Your task to perform on an android device: Clear the shopping cart on walmart. Search for "usb-c" on walmart, select the first entry, add it to the cart, then select checkout. Image 0: 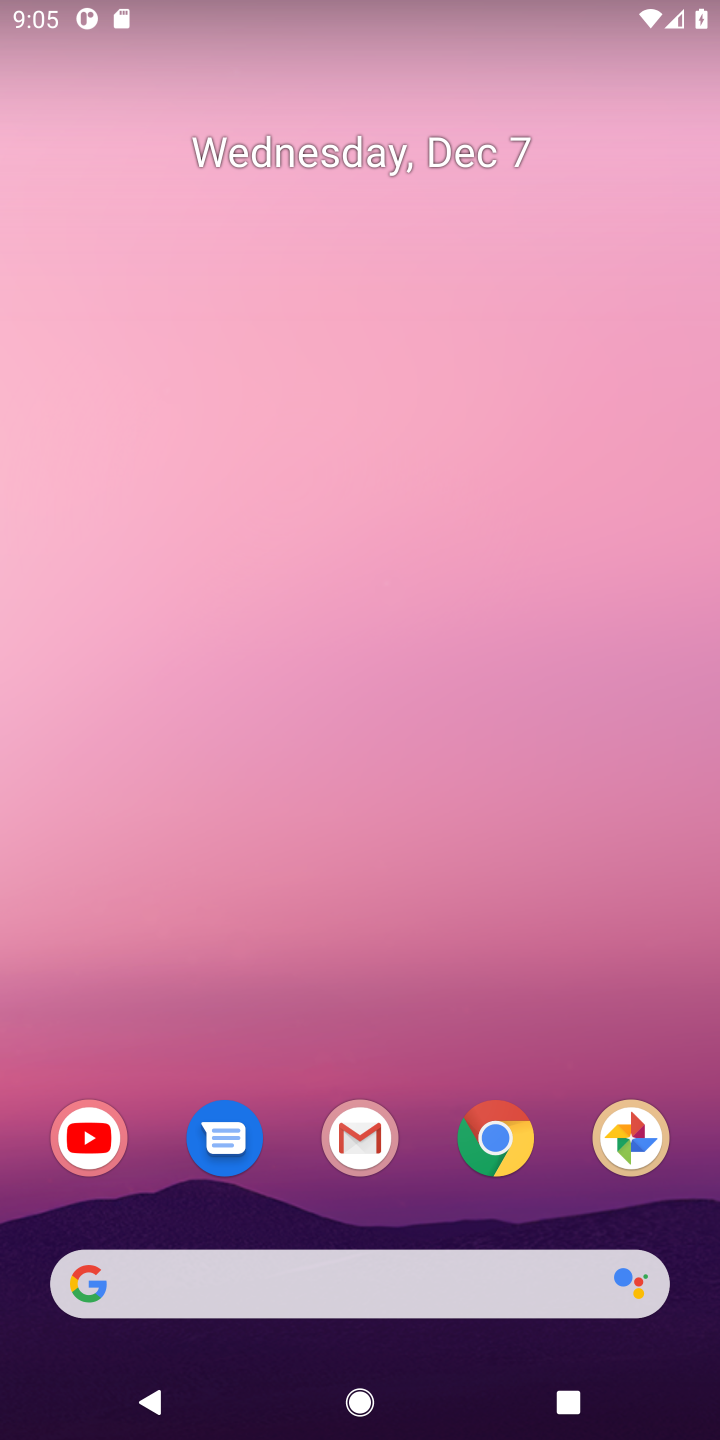
Step 0: press home button
Your task to perform on an android device: Clear the shopping cart on walmart. Search for "usb-c" on walmart, select the first entry, add it to the cart, then select checkout. Image 1: 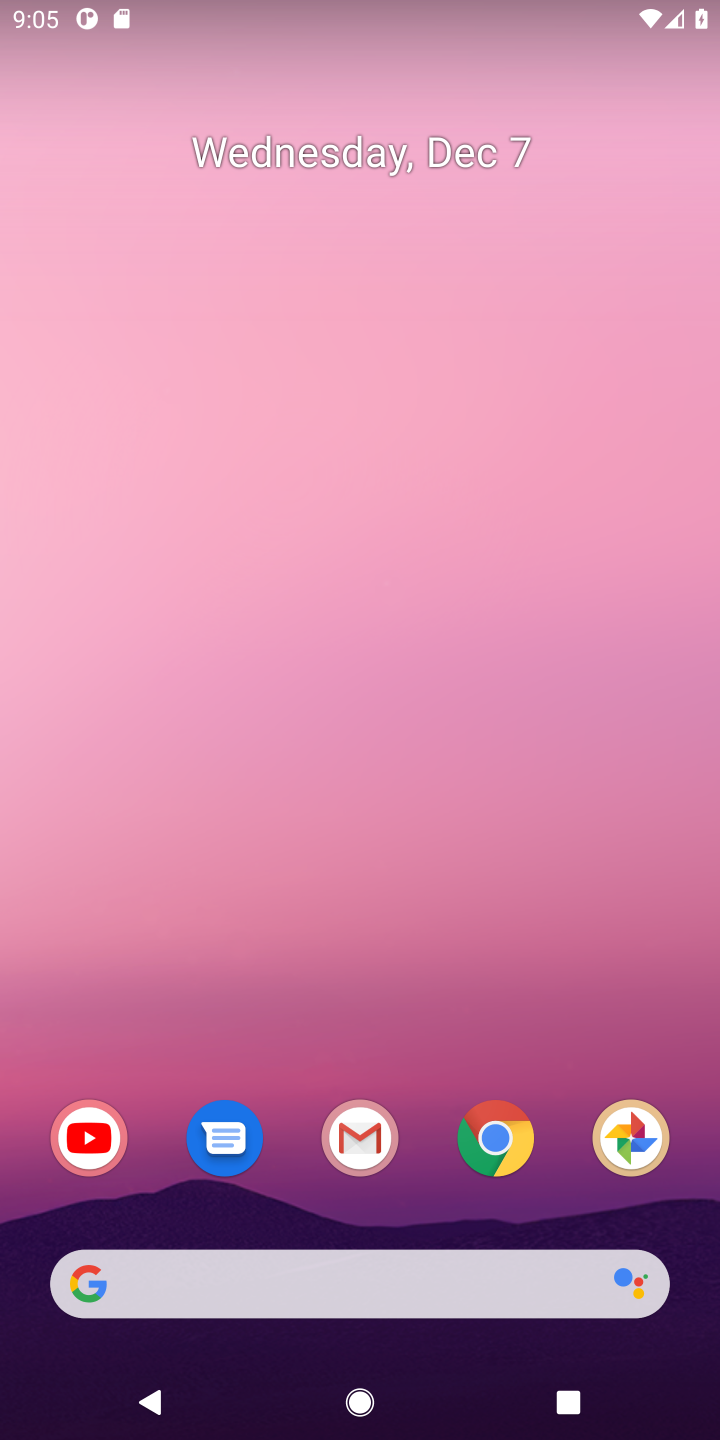
Step 1: click (125, 1293)
Your task to perform on an android device: Clear the shopping cart on walmart. Search for "usb-c" on walmart, select the first entry, add it to the cart, then select checkout. Image 2: 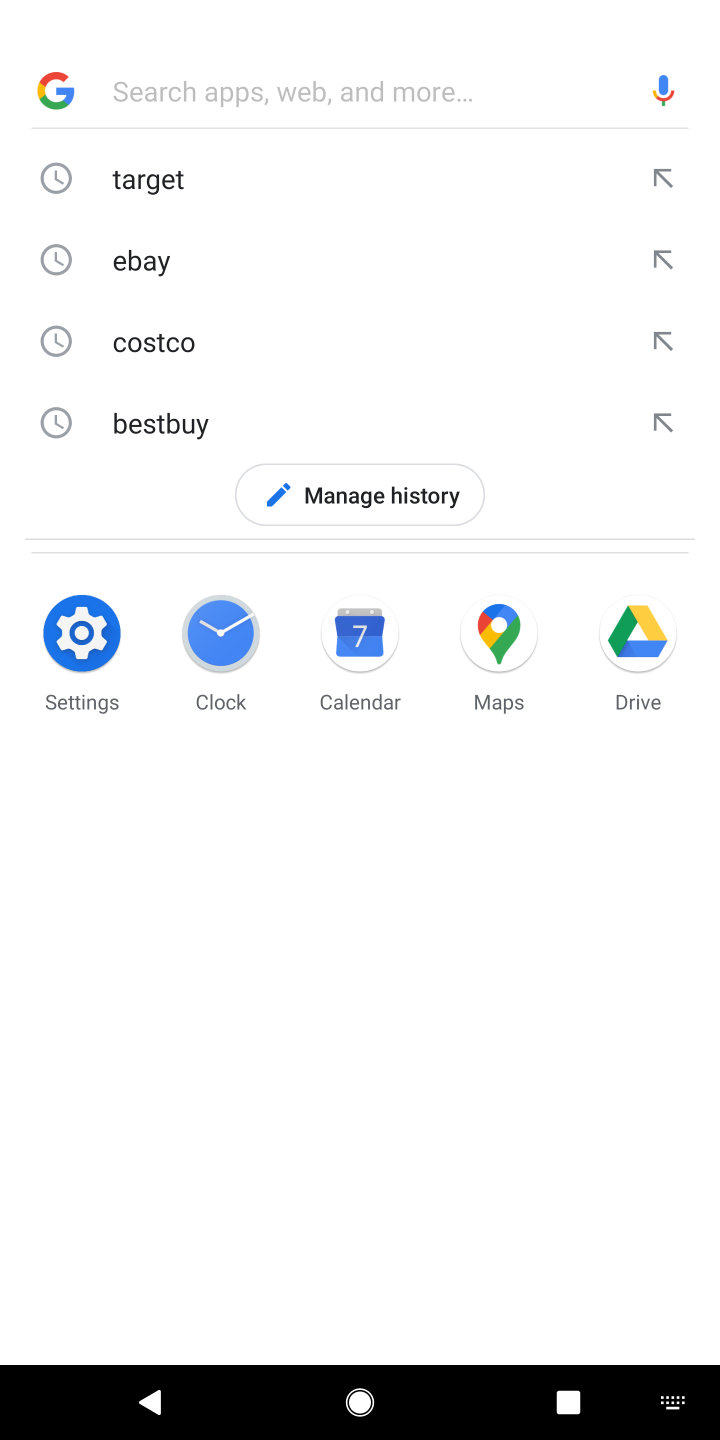
Step 2: type "walmart"
Your task to perform on an android device: Clear the shopping cart on walmart. Search for "usb-c" on walmart, select the first entry, add it to the cart, then select checkout. Image 3: 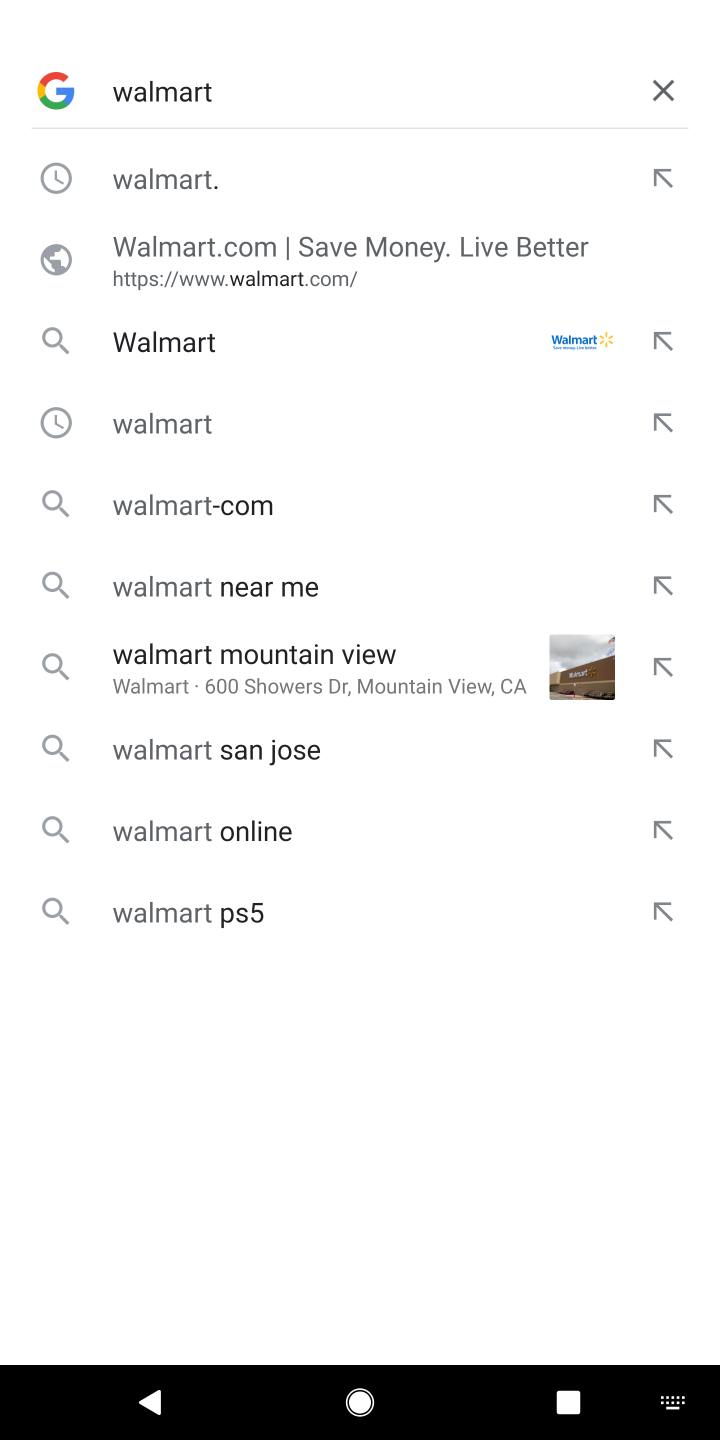
Step 3: press enter
Your task to perform on an android device: Clear the shopping cart on walmart. Search for "usb-c" on walmart, select the first entry, add it to the cart, then select checkout. Image 4: 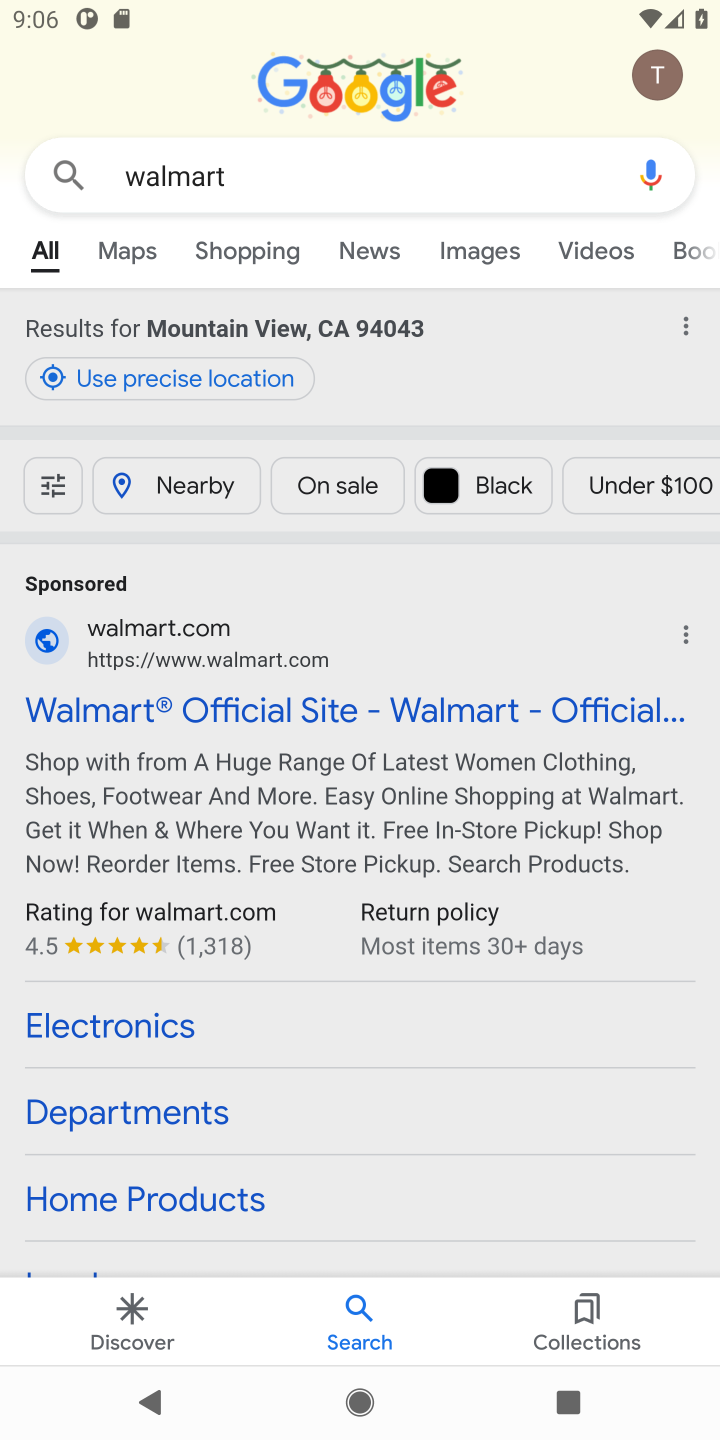
Step 4: click (247, 707)
Your task to perform on an android device: Clear the shopping cart on walmart. Search for "usb-c" on walmart, select the first entry, add it to the cart, then select checkout. Image 5: 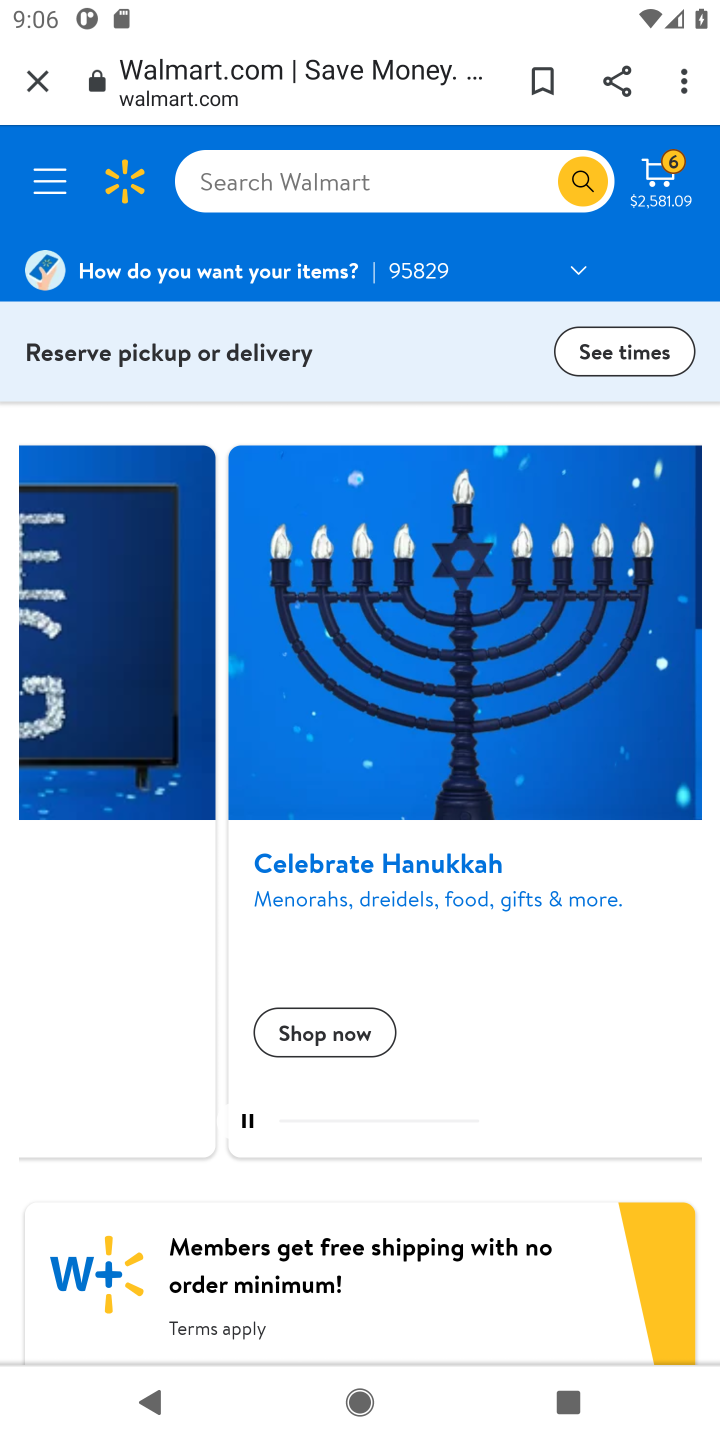
Step 5: click (670, 166)
Your task to perform on an android device: Clear the shopping cart on walmart. Search for "usb-c" on walmart, select the first entry, add it to the cart, then select checkout. Image 6: 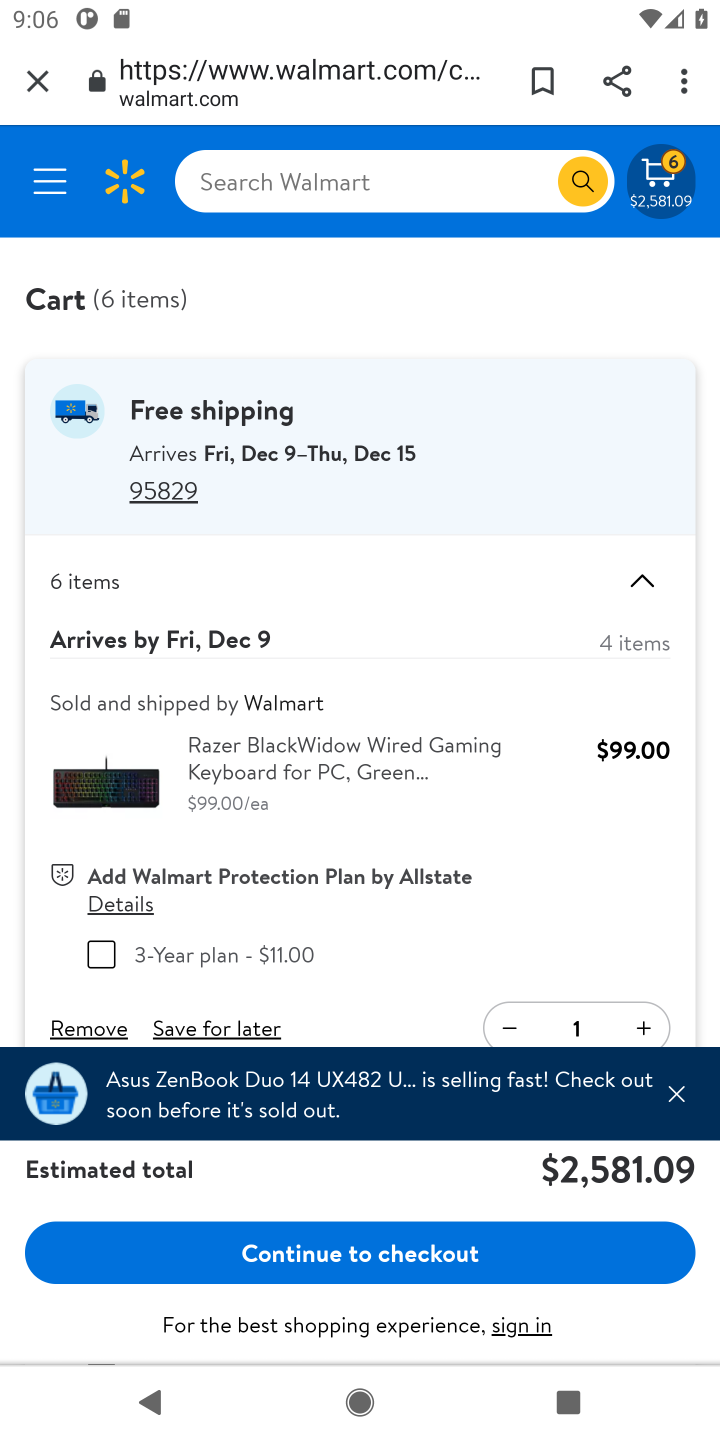
Step 6: drag from (360, 946) to (370, 413)
Your task to perform on an android device: Clear the shopping cart on walmart. Search for "usb-c" on walmart, select the first entry, add it to the cart, then select checkout. Image 7: 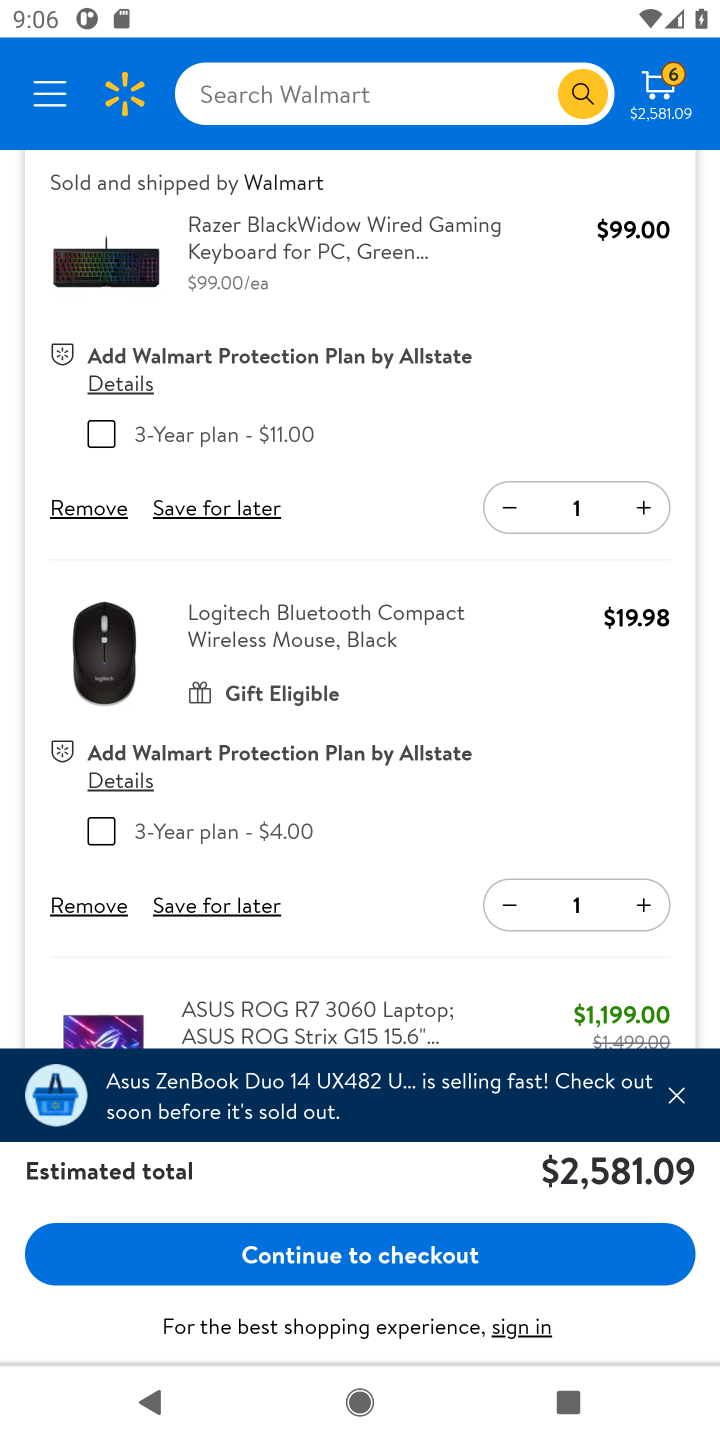
Step 7: click (83, 513)
Your task to perform on an android device: Clear the shopping cart on walmart. Search for "usb-c" on walmart, select the first entry, add it to the cart, then select checkout. Image 8: 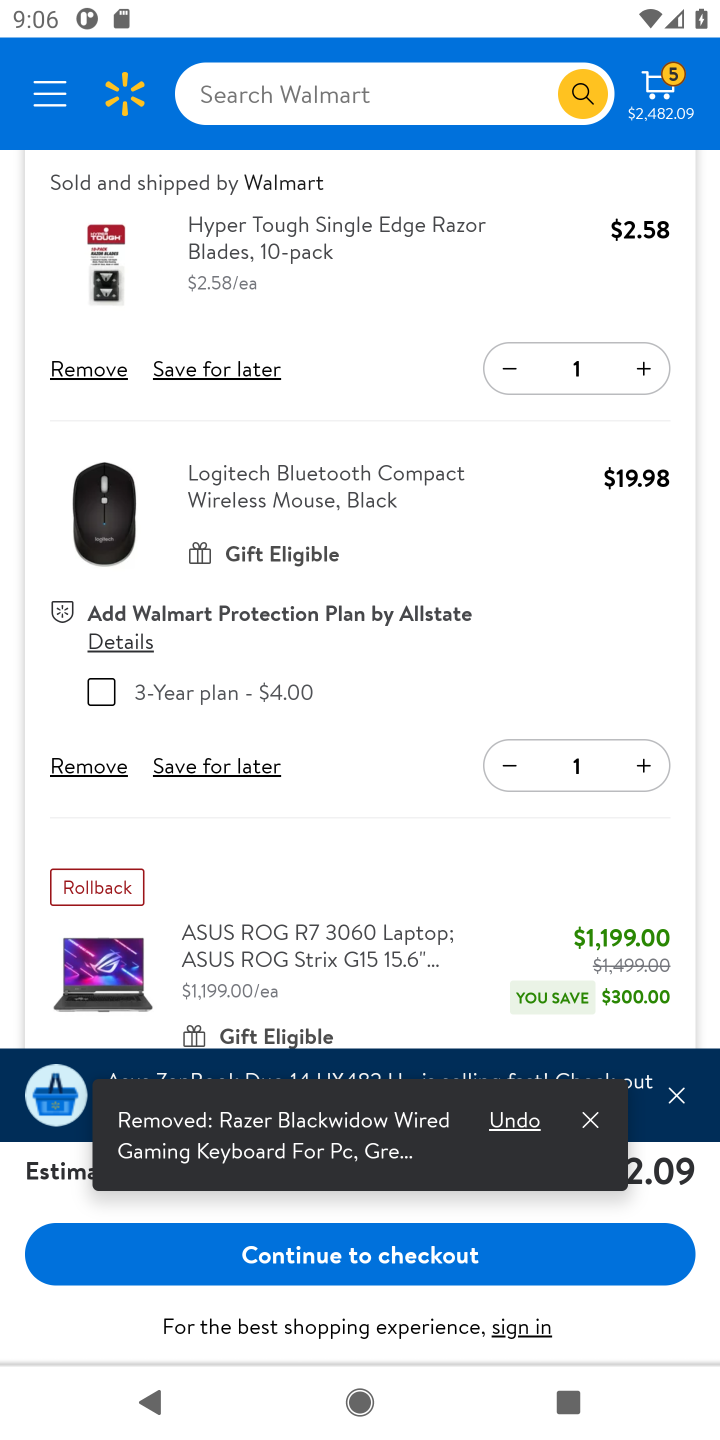
Step 8: click (86, 373)
Your task to perform on an android device: Clear the shopping cart on walmart. Search for "usb-c" on walmart, select the first entry, add it to the cart, then select checkout. Image 9: 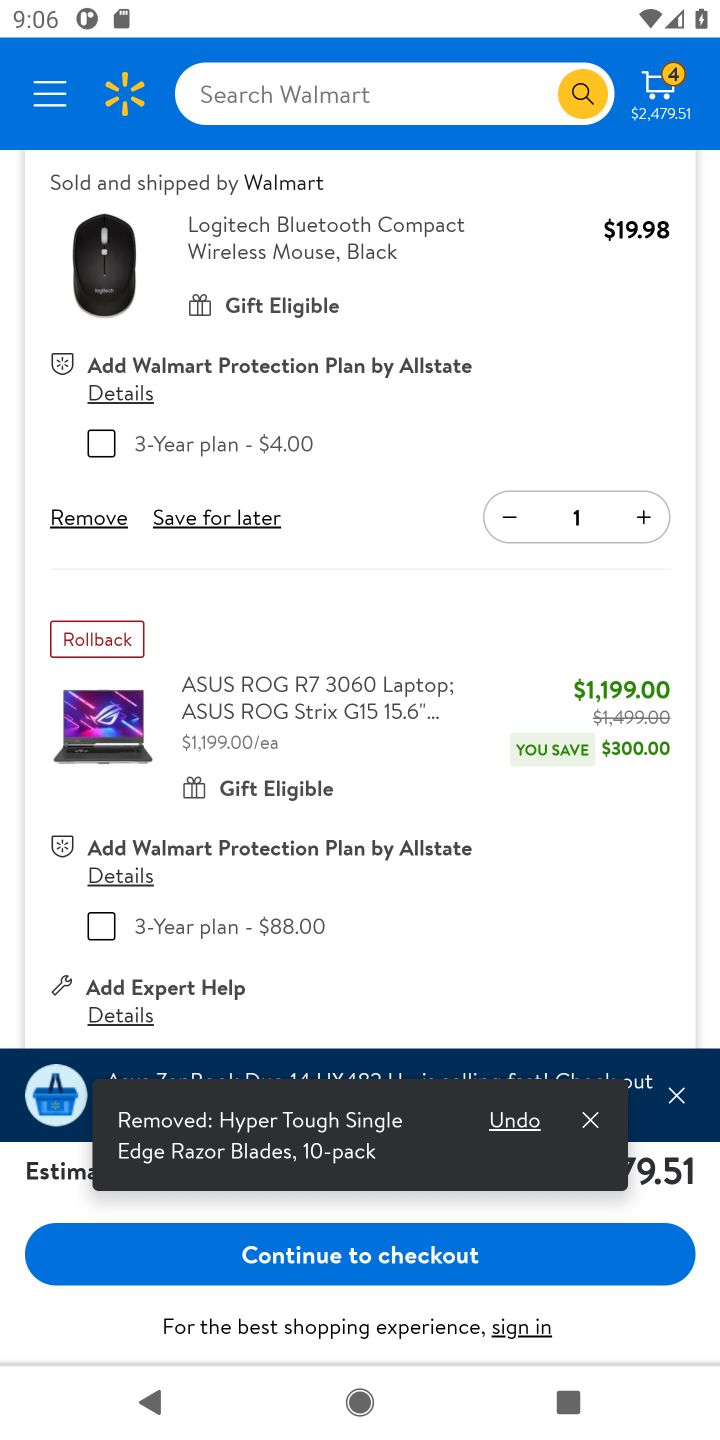
Step 9: click (80, 523)
Your task to perform on an android device: Clear the shopping cart on walmart. Search for "usb-c" on walmart, select the first entry, add it to the cart, then select checkout. Image 10: 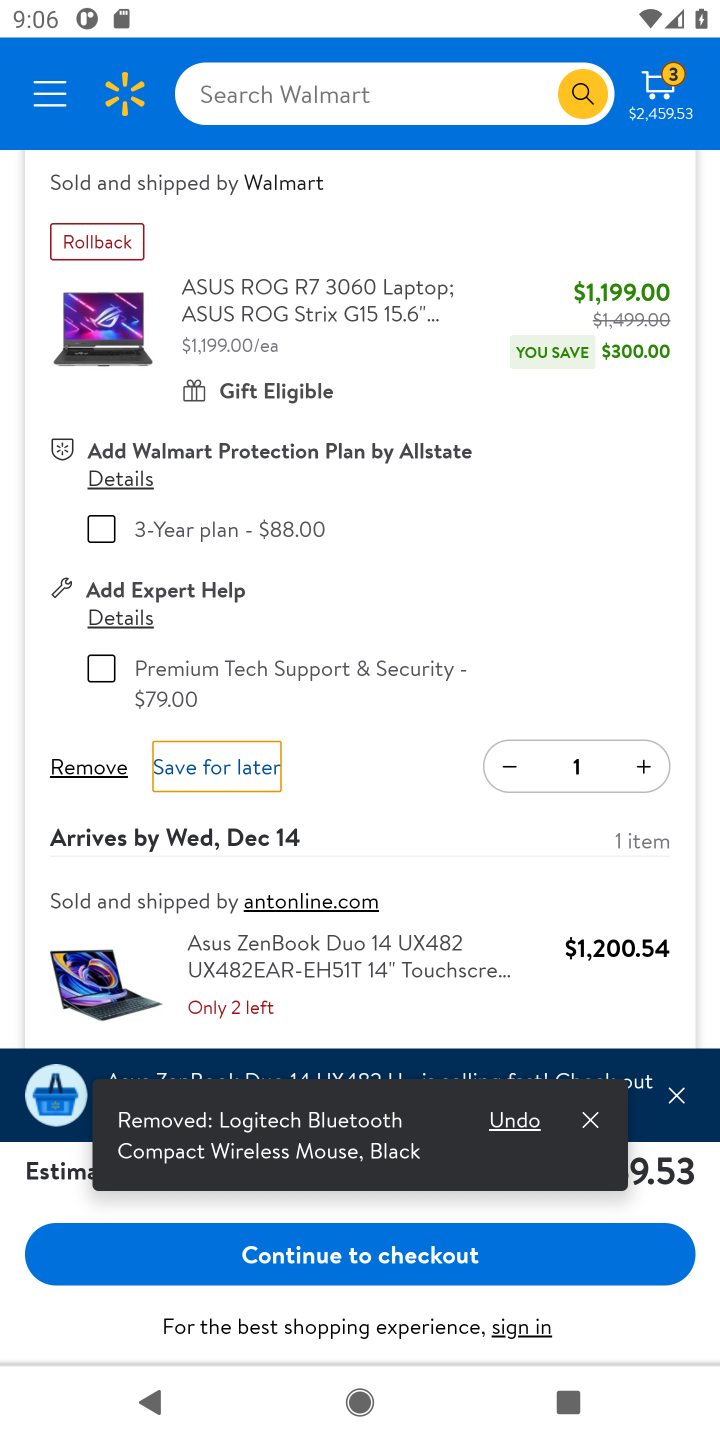
Step 10: click (90, 774)
Your task to perform on an android device: Clear the shopping cart on walmart. Search for "usb-c" on walmart, select the first entry, add it to the cart, then select checkout. Image 11: 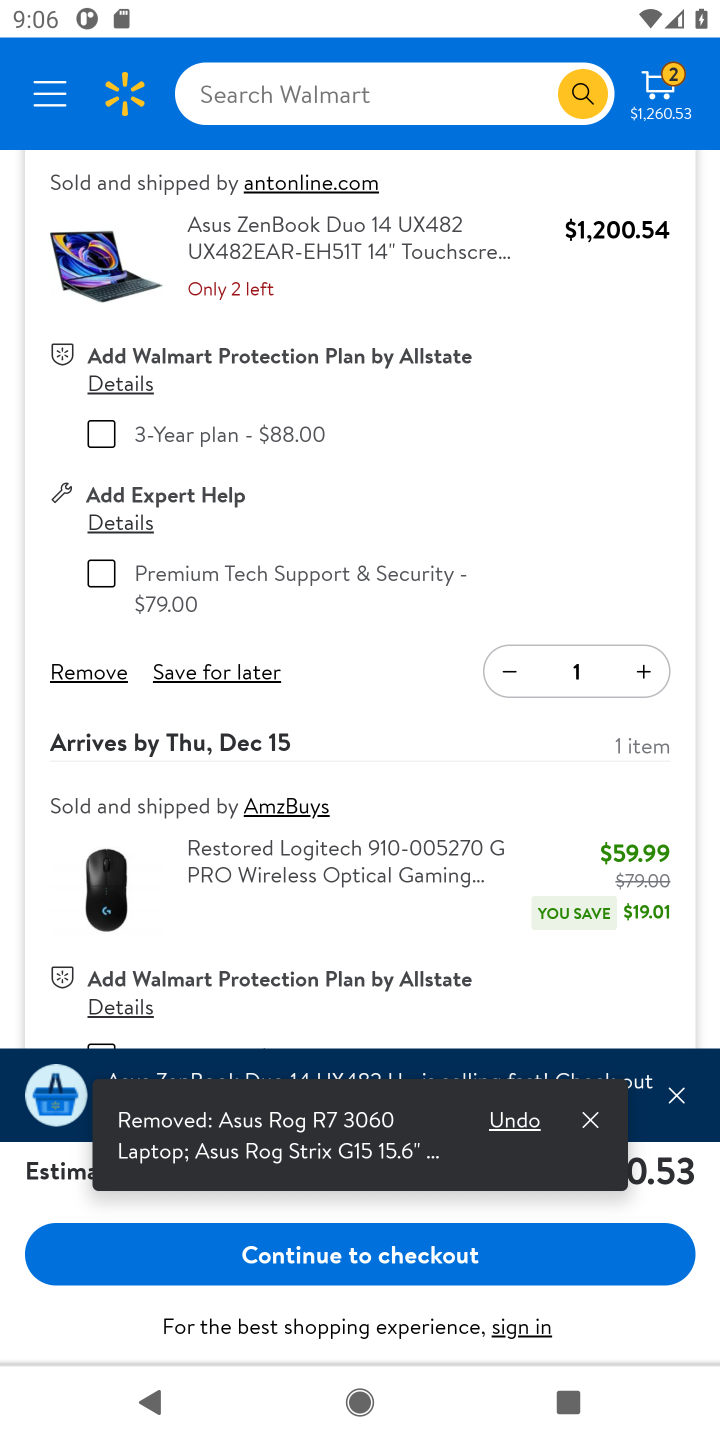
Step 11: click (95, 671)
Your task to perform on an android device: Clear the shopping cart on walmart. Search for "usb-c" on walmart, select the first entry, add it to the cart, then select checkout. Image 12: 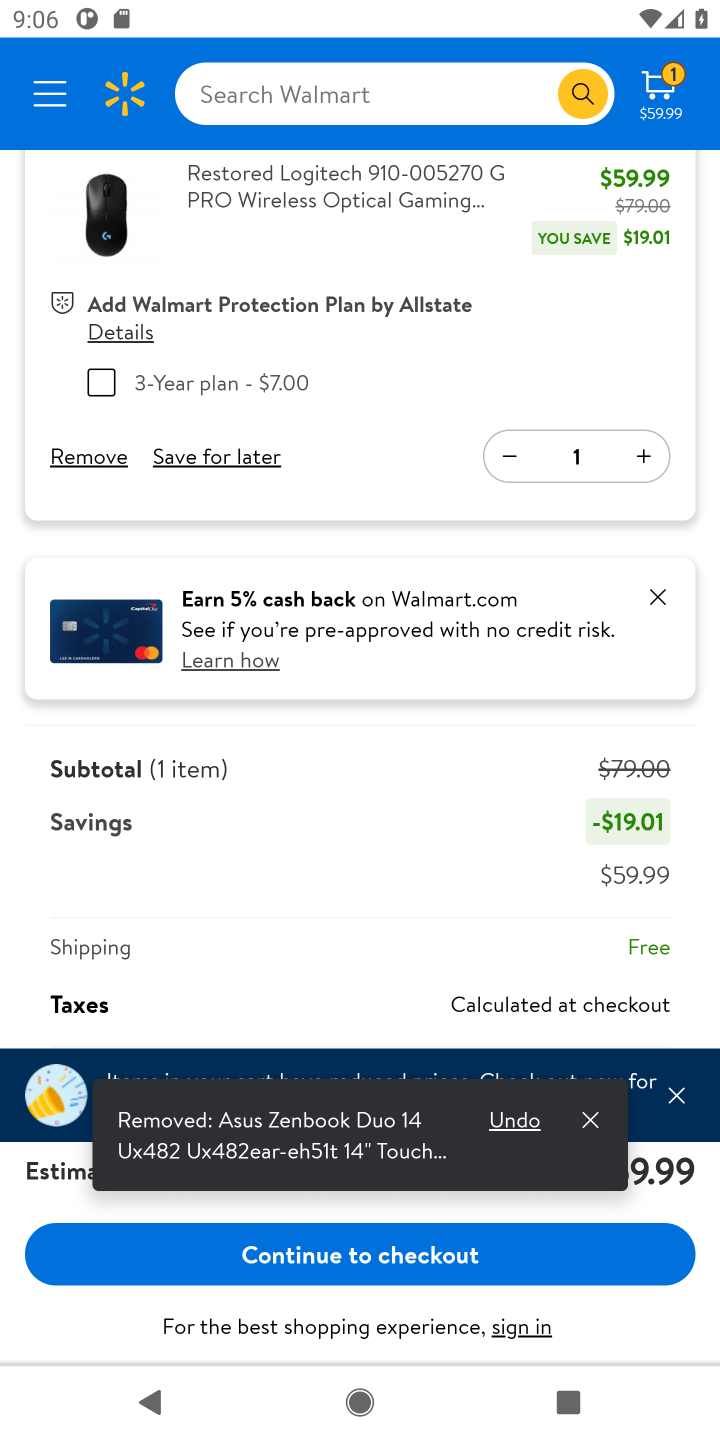
Step 12: click (71, 461)
Your task to perform on an android device: Clear the shopping cart on walmart. Search for "usb-c" on walmart, select the first entry, add it to the cart, then select checkout. Image 13: 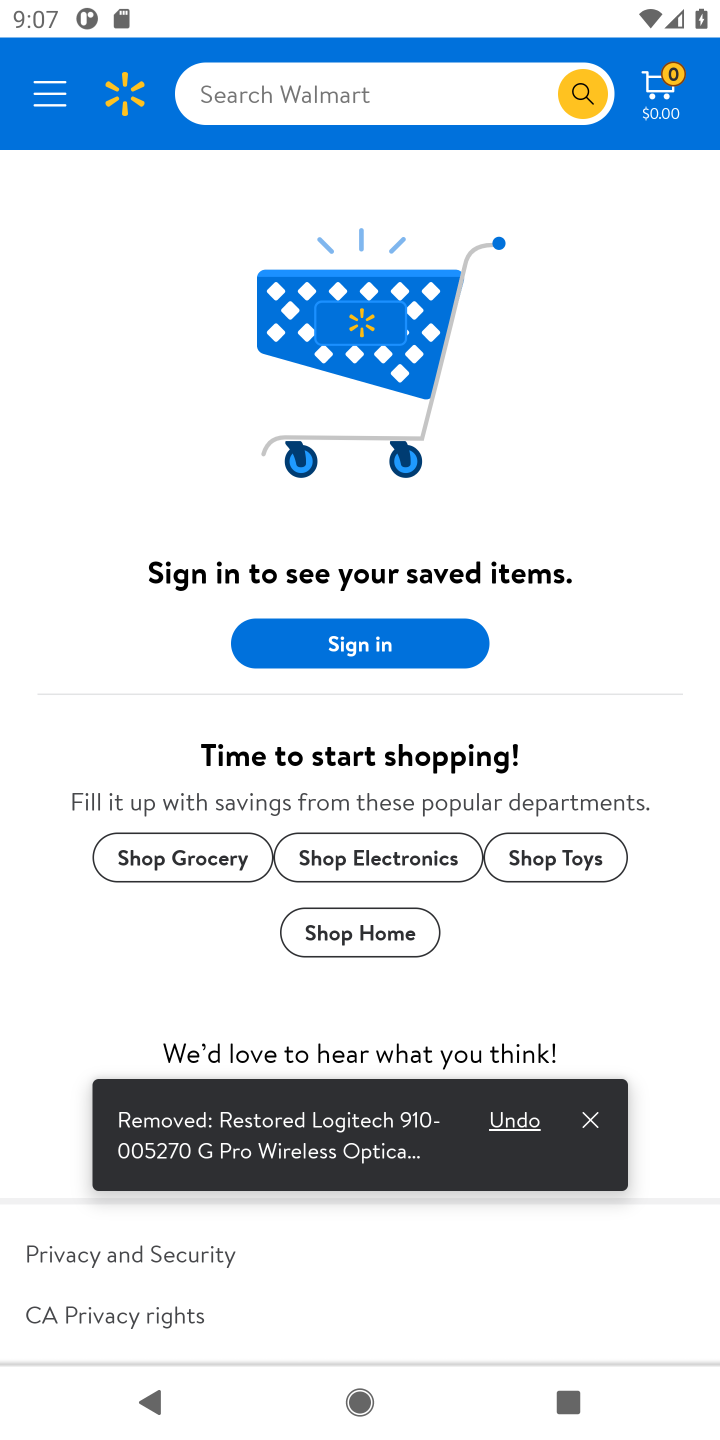
Step 13: click (317, 90)
Your task to perform on an android device: Clear the shopping cart on walmart. Search for "usb-c" on walmart, select the first entry, add it to the cart, then select checkout. Image 14: 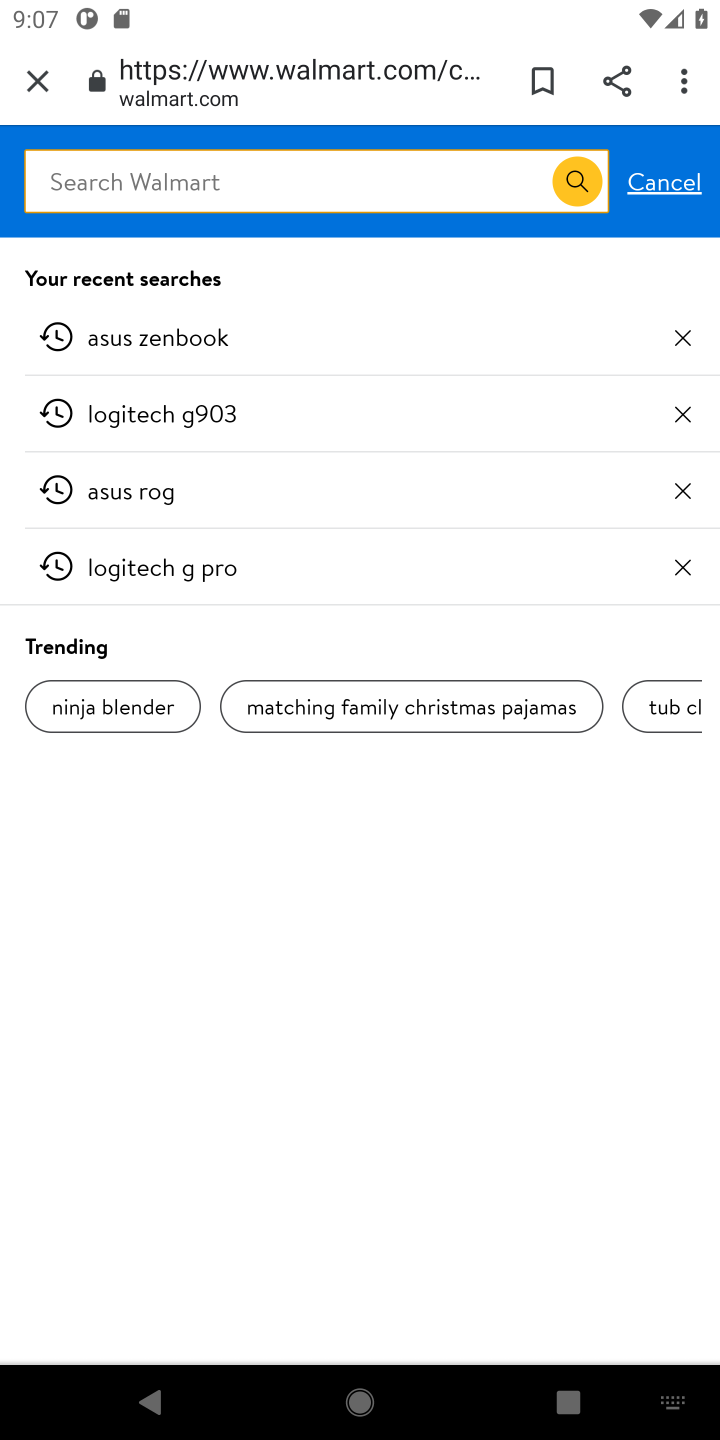
Step 14: type "usb-c"
Your task to perform on an android device: Clear the shopping cart on walmart. Search for "usb-c" on walmart, select the first entry, add it to the cart, then select checkout. Image 15: 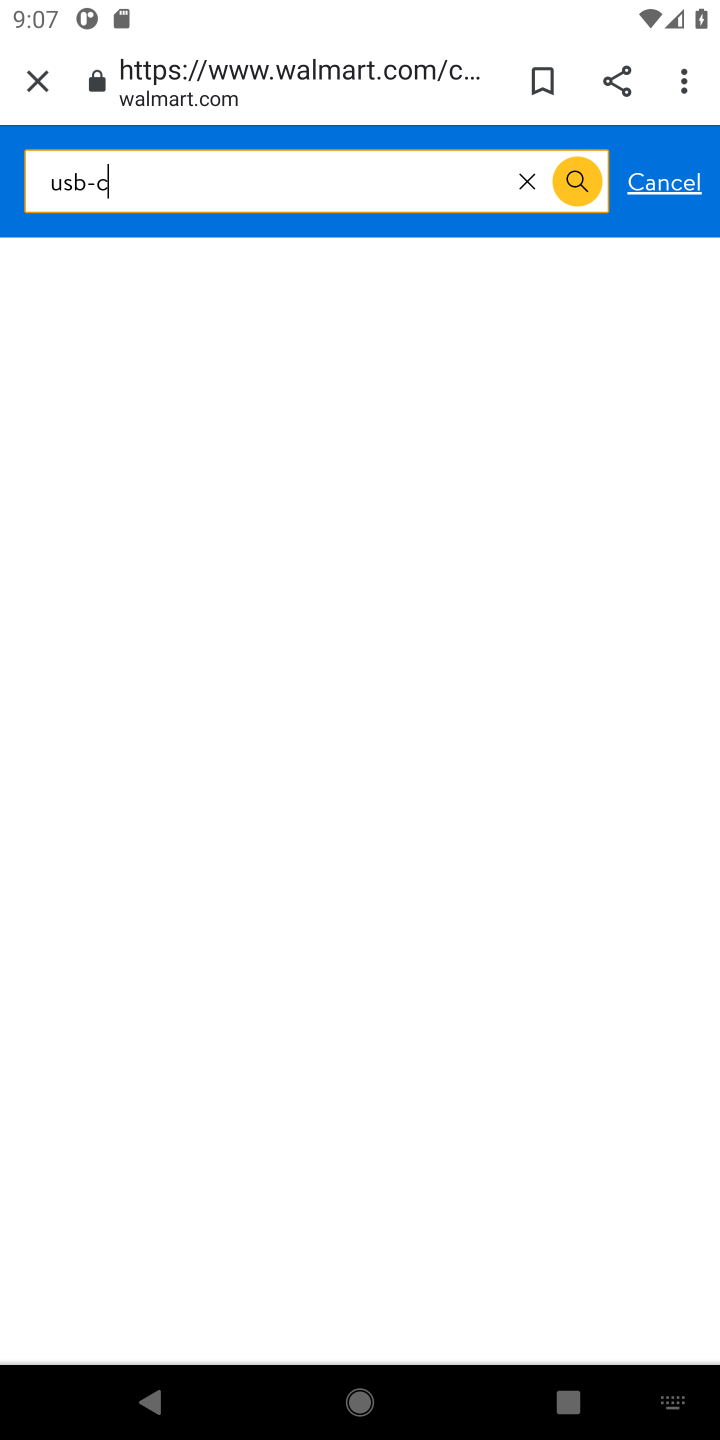
Step 15: press enter
Your task to perform on an android device: Clear the shopping cart on walmart. Search for "usb-c" on walmart, select the first entry, add it to the cart, then select checkout. Image 16: 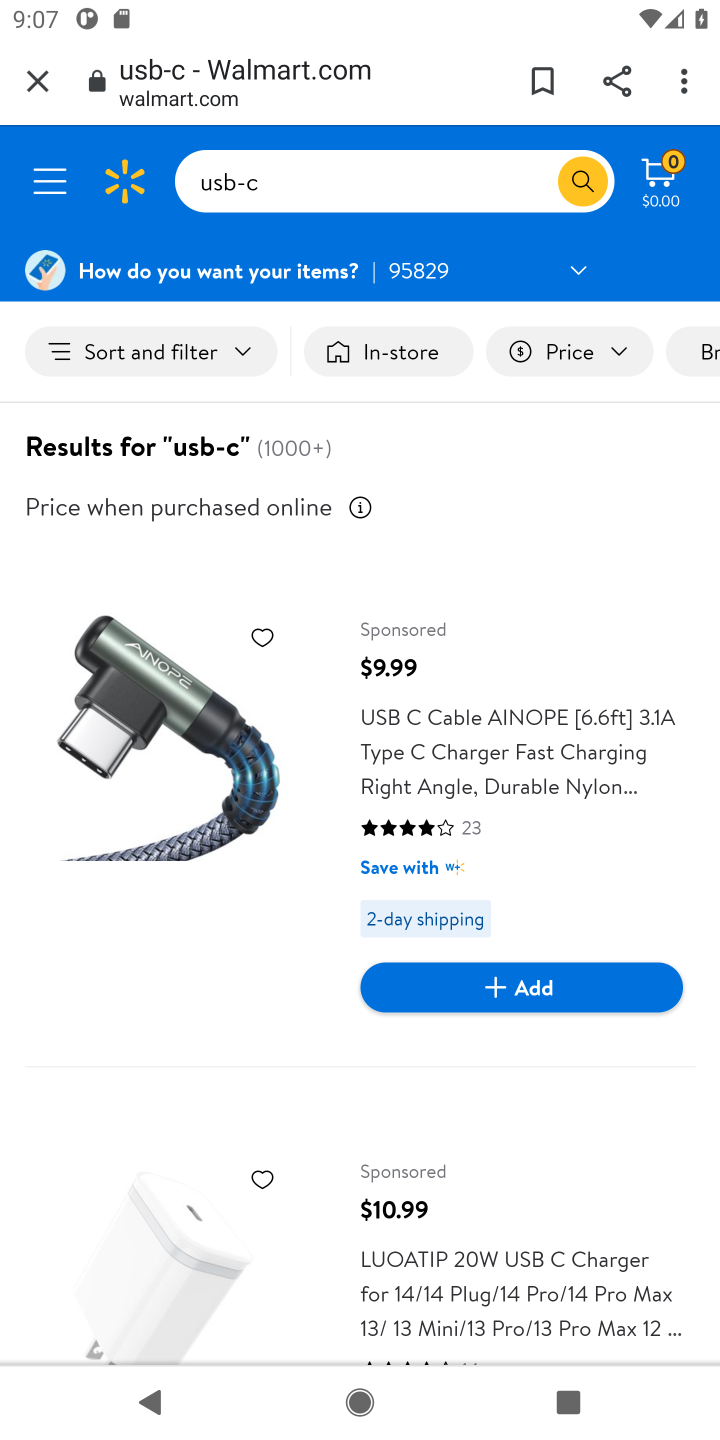
Step 16: click (491, 992)
Your task to perform on an android device: Clear the shopping cart on walmart. Search for "usb-c" on walmart, select the first entry, add it to the cart, then select checkout. Image 17: 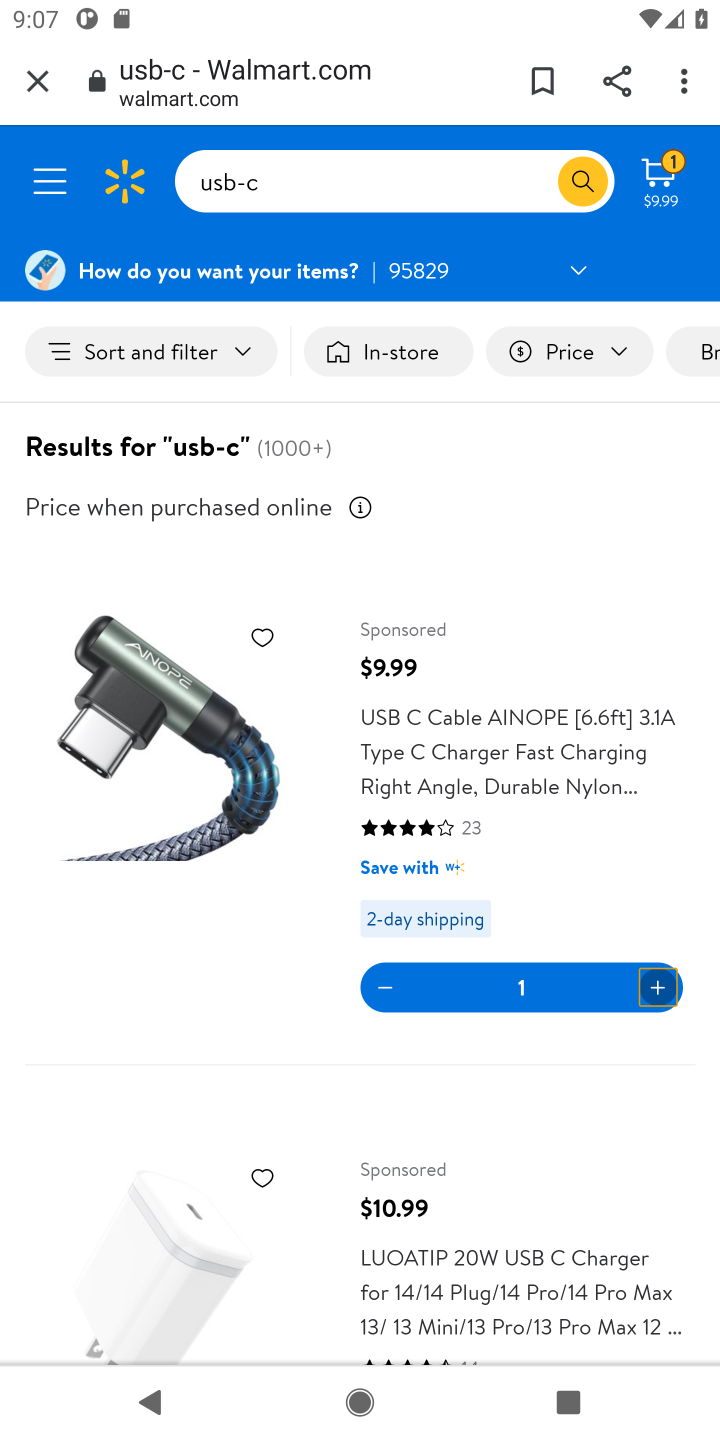
Step 17: click (655, 160)
Your task to perform on an android device: Clear the shopping cart on walmart. Search for "usb-c" on walmart, select the first entry, add it to the cart, then select checkout. Image 18: 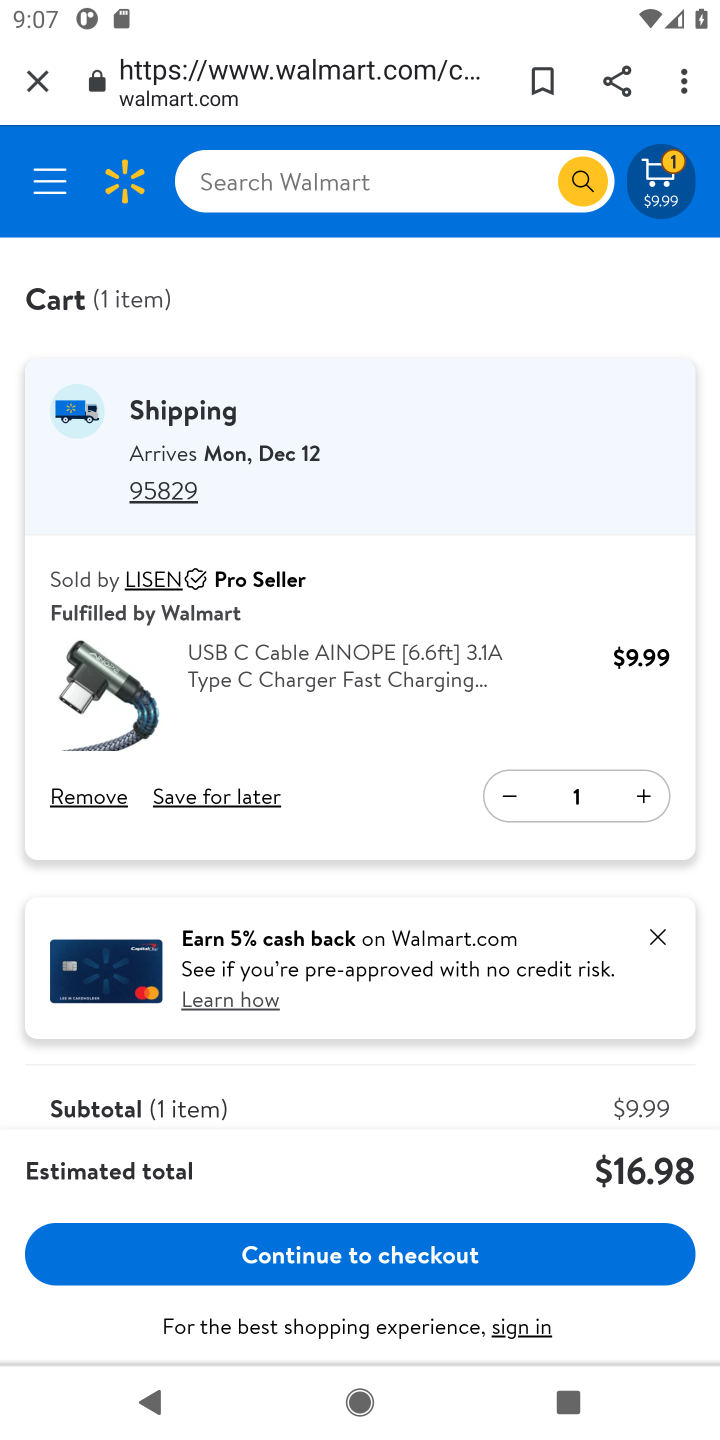
Step 18: click (343, 1258)
Your task to perform on an android device: Clear the shopping cart on walmart. Search for "usb-c" on walmart, select the first entry, add it to the cart, then select checkout. Image 19: 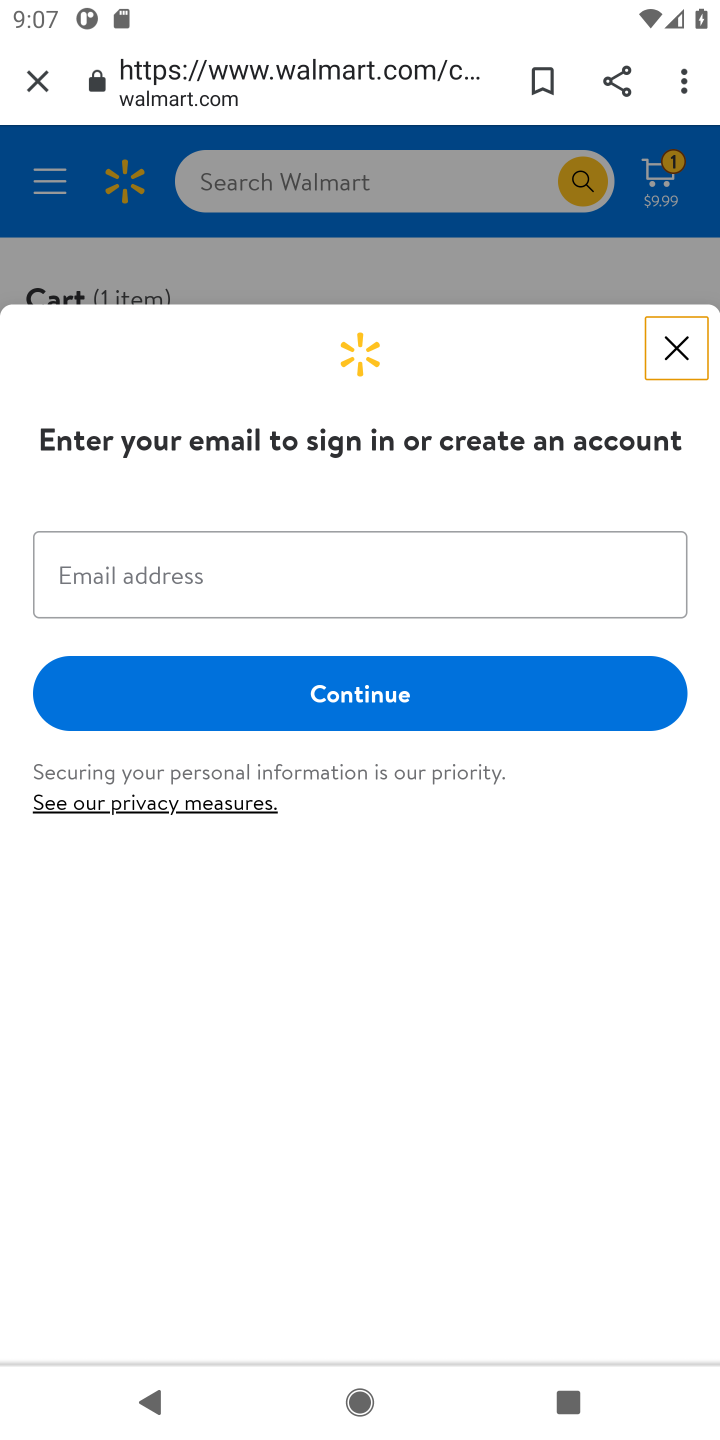
Step 19: task complete